Your task to perform on an android device: move a message to another label in the gmail app Image 0: 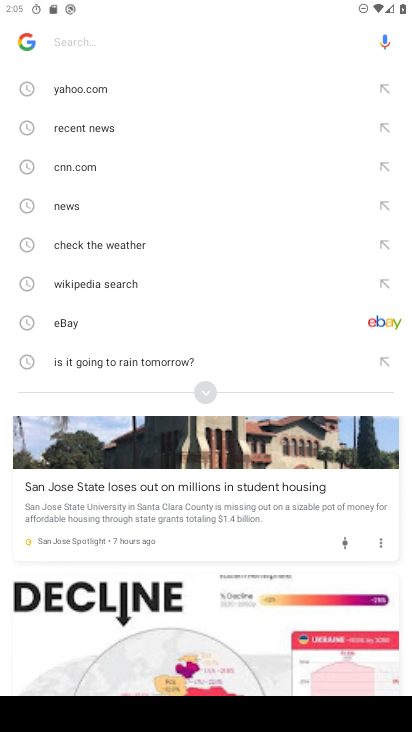
Step 0: press home button
Your task to perform on an android device: move a message to another label in the gmail app Image 1: 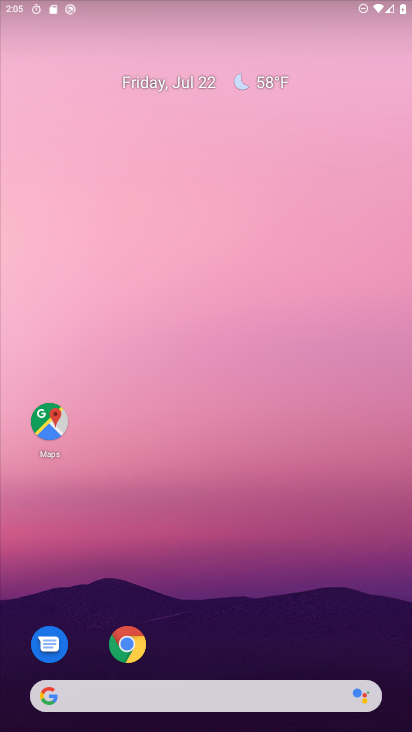
Step 1: drag from (227, 624) to (227, 52)
Your task to perform on an android device: move a message to another label in the gmail app Image 2: 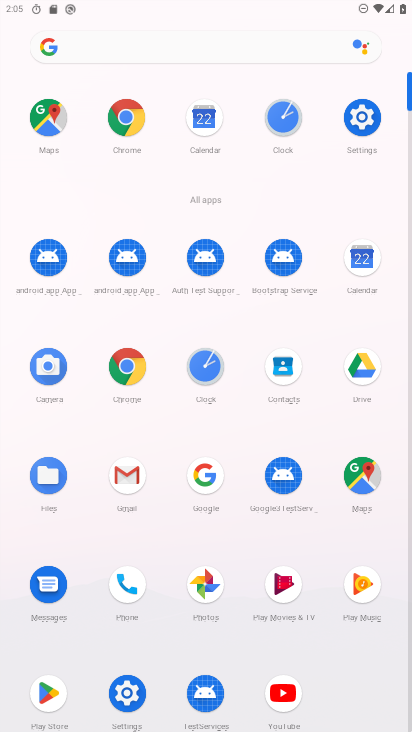
Step 2: click (130, 489)
Your task to perform on an android device: move a message to another label in the gmail app Image 3: 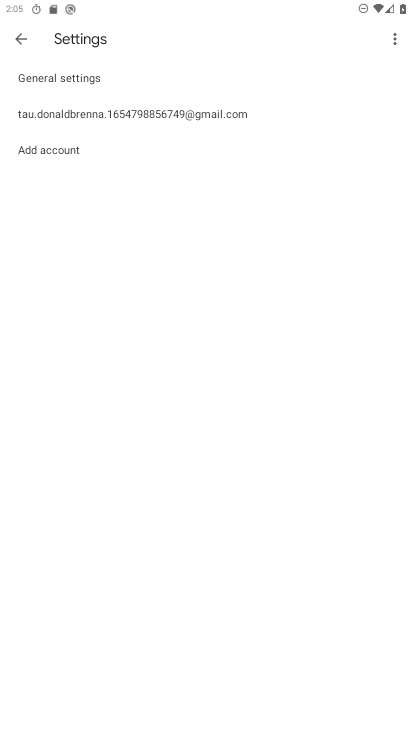
Step 3: click (13, 34)
Your task to perform on an android device: move a message to another label in the gmail app Image 4: 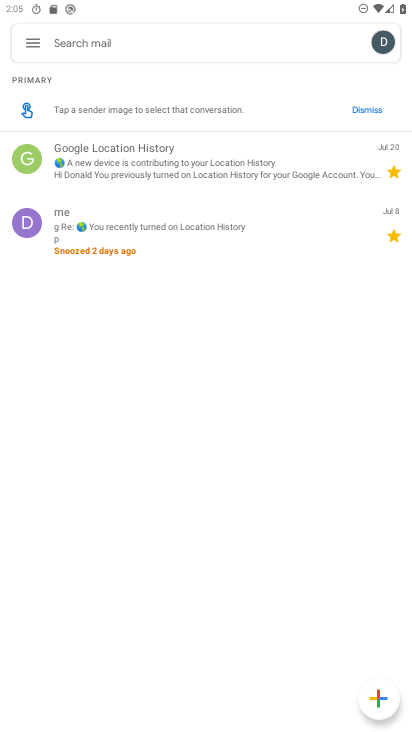
Step 4: click (236, 179)
Your task to perform on an android device: move a message to another label in the gmail app Image 5: 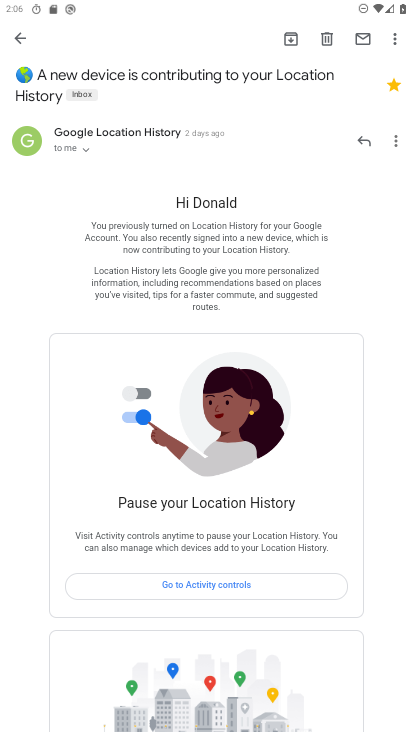
Step 5: click (390, 33)
Your task to perform on an android device: move a message to another label in the gmail app Image 6: 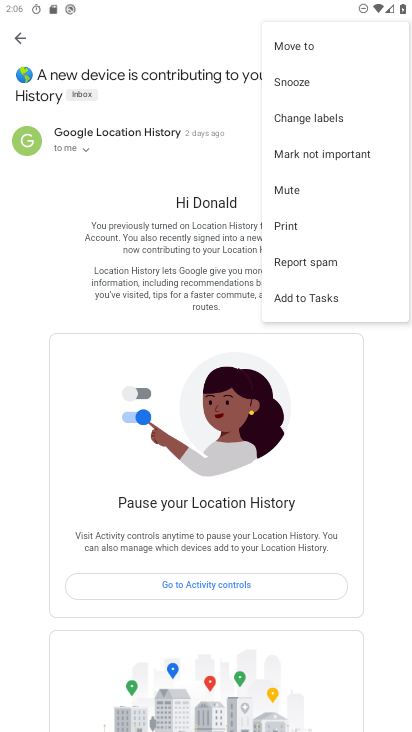
Step 6: click (331, 114)
Your task to perform on an android device: move a message to another label in the gmail app Image 7: 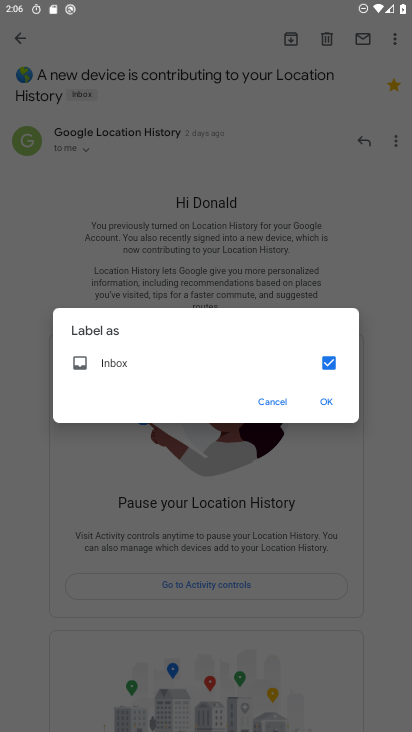
Step 7: click (333, 392)
Your task to perform on an android device: move a message to another label in the gmail app Image 8: 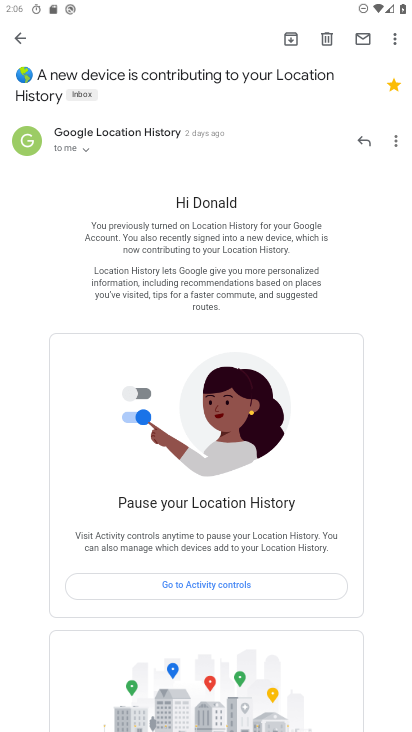
Step 8: task complete